Your task to perform on an android device: Go to notification settings Image 0: 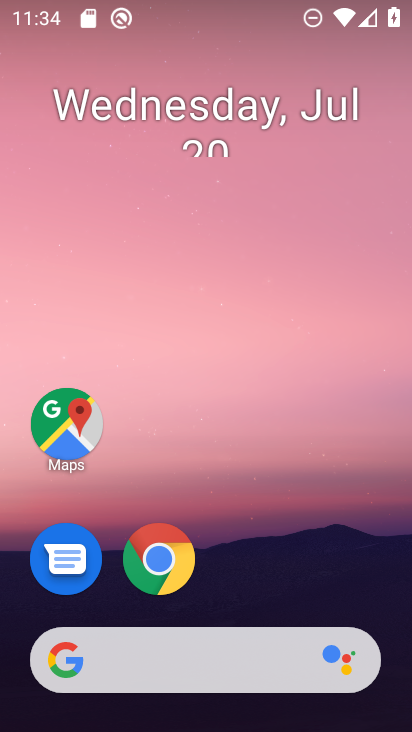
Step 0: drag from (201, 525) to (334, 124)
Your task to perform on an android device: Go to notification settings Image 1: 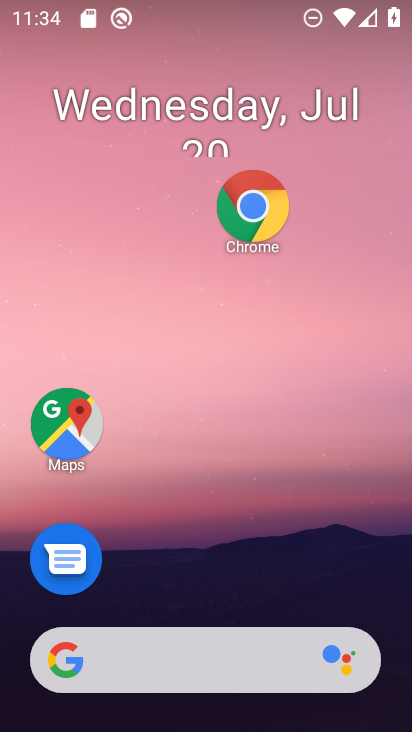
Step 1: drag from (261, 682) to (320, 86)
Your task to perform on an android device: Go to notification settings Image 2: 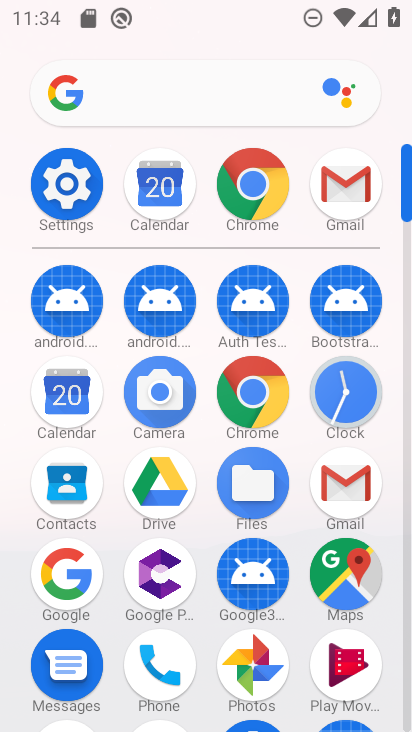
Step 2: drag from (208, 418) to (238, 254)
Your task to perform on an android device: Go to notification settings Image 3: 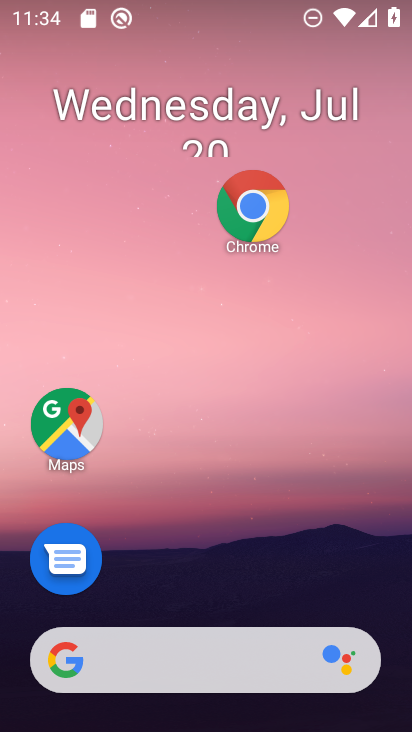
Step 3: drag from (197, 616) to (305, 37)
Your task to perform on an android device: Go to notification settings Image 4: 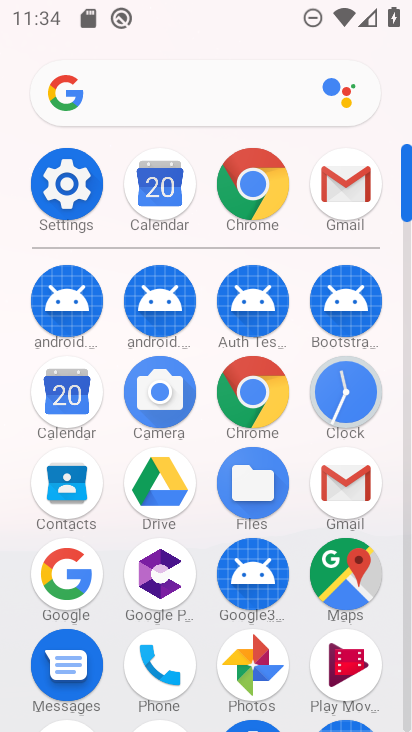
Step 4: click (73, 211)
Your task to perform on an android device: Go to notification settings Image 5: 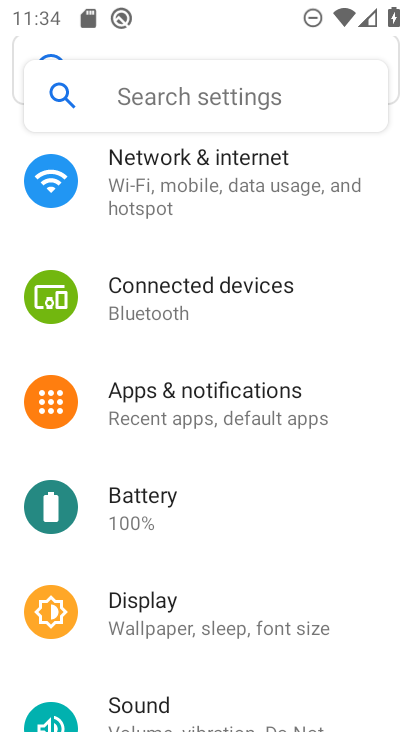
Step 5: click (204, 402)
Your task to perform on an android device: Go to notification settings Image 6: 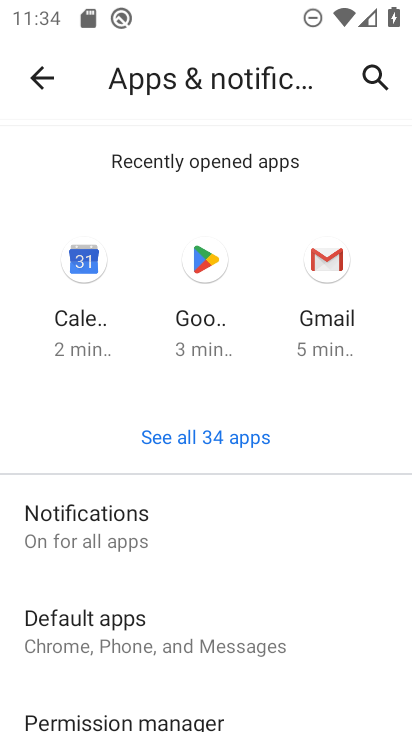
Step 6: click (175, 528)
Your task to perform on an android device: Go to notification settings Image 7: 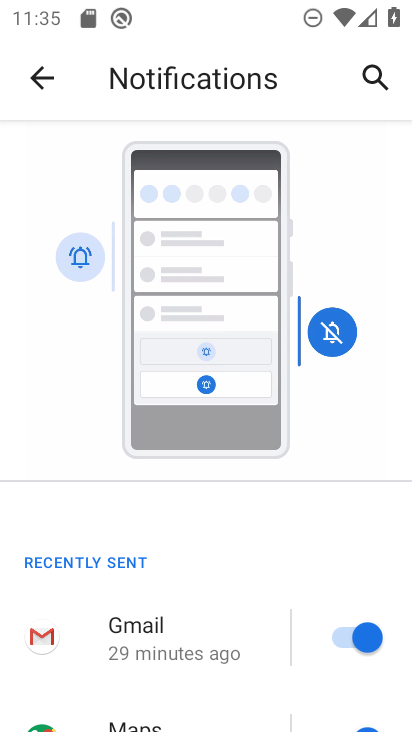
Step 7: task complete